Your task to perform on an android device: clear history in the chrome app Image 0: 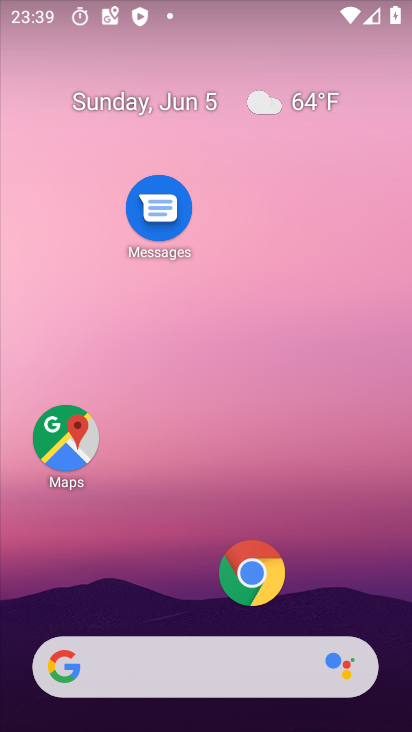
Step 0: click (267, 575)
Your task to perform on an android device: clear history in the chrome app Image 1: 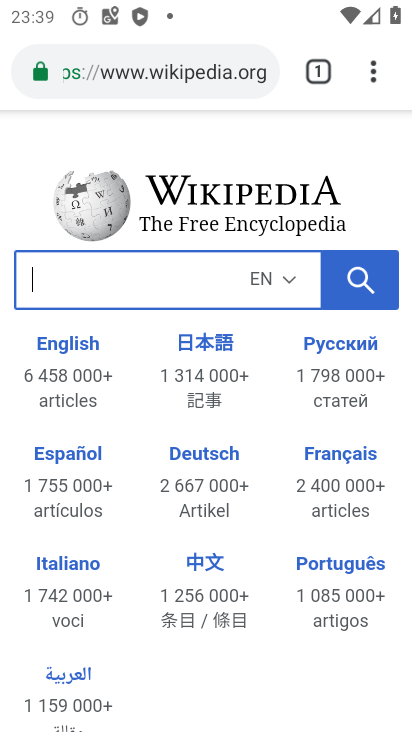
Step 1: drag from (367, 73) to (171, 396)
Your task to perform on an android device: clear history in the chrome app Image 2: 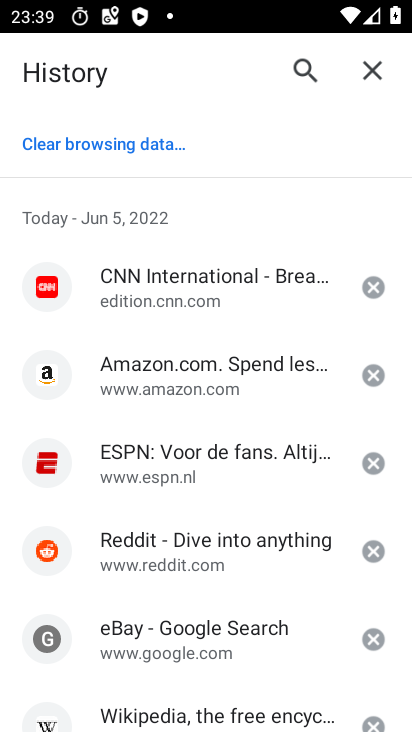
Step 2: click (72, 136)
Your task to perform on an android device: clear history in the chrome app Image 3: 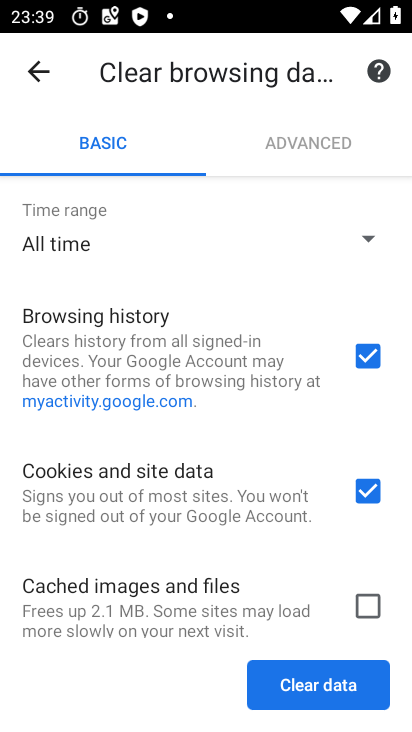
Step 3: click (289, 672)
Your task to perform on an android device: clear history in the chrome app Image 4: 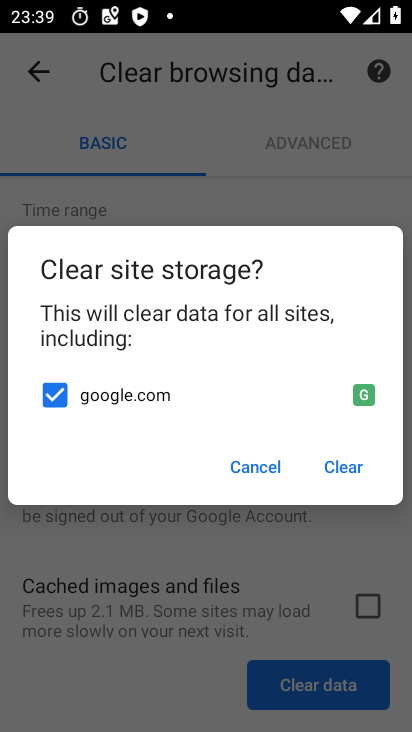
Step 4: click (348, 468)
Your task to perform on an android device: clear history in the chrome app Image 5: 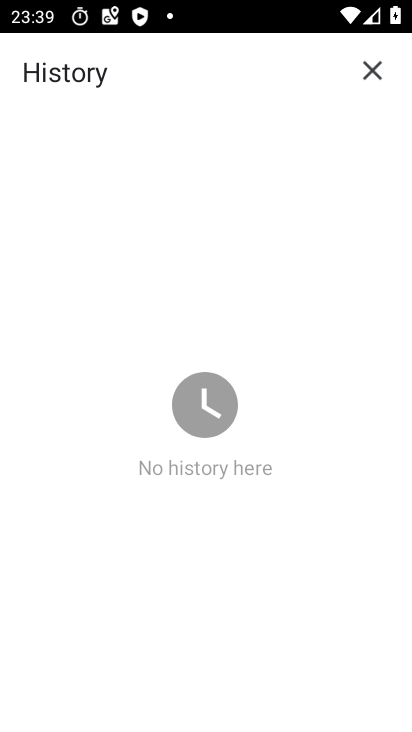
Step 5: task complete